Your task to perform on an android device: change text size in settings app Image 0: 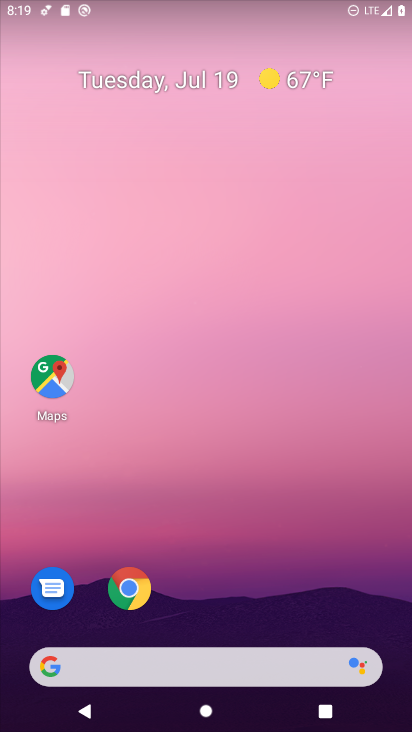
Step 0: drag from (348, 589) to (377, 153)
Your task to perform on an android device: change text size in settings app Image 1: 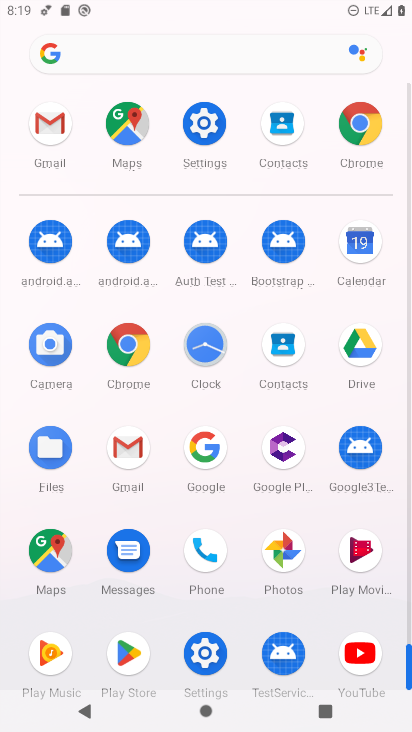
Step 1: click (208, 138)
Your task to perform on an android device: change text size in settings app Image 2: 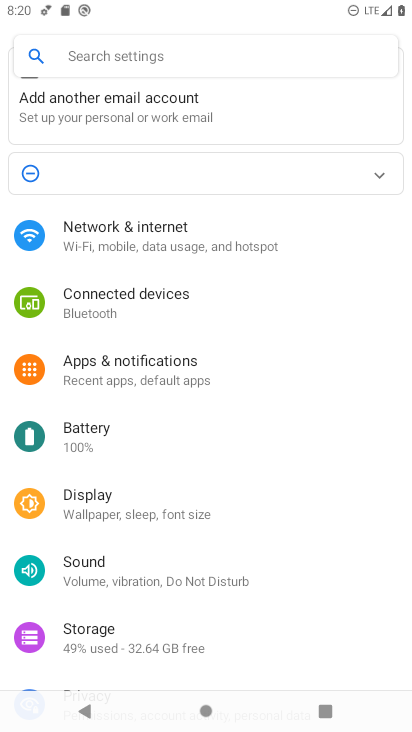
Step 2: click (221, 485)
Your task to perform on an android device: change text size in settings app Image 3: 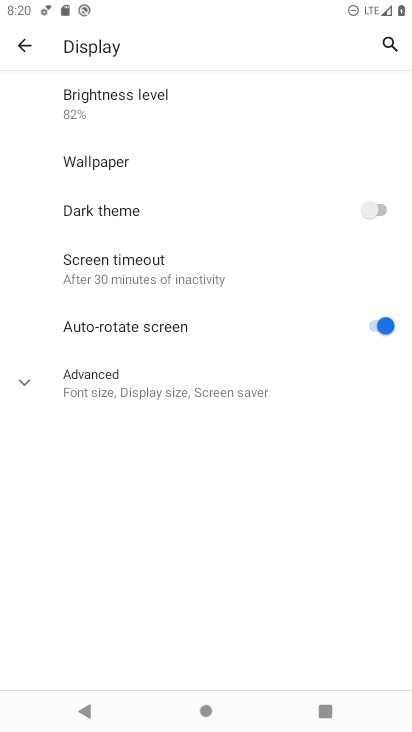
Step 3: click (206, 383)
Your task to perform on an android device: change text size in settings app Image 4: 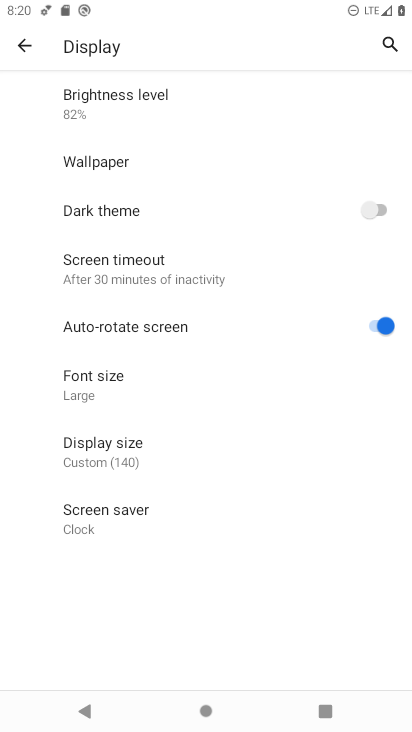
Step 4: click (129, 386)
Your task to perform on an android device: change text size in settings app Image 5: 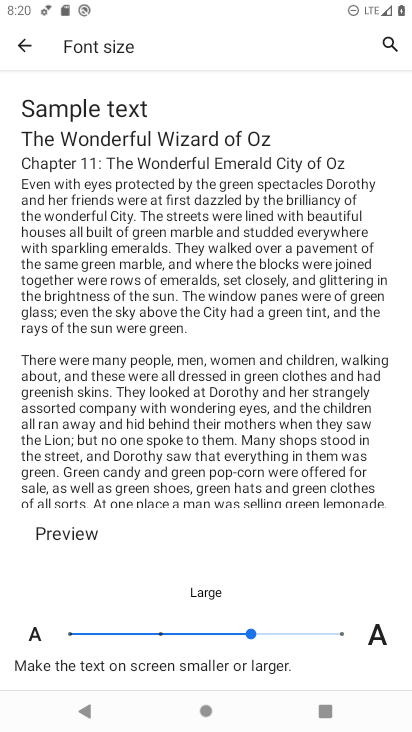
Step 5: click (341, 632)
Your task to perform on an android device: change text size in settings app Image 6: 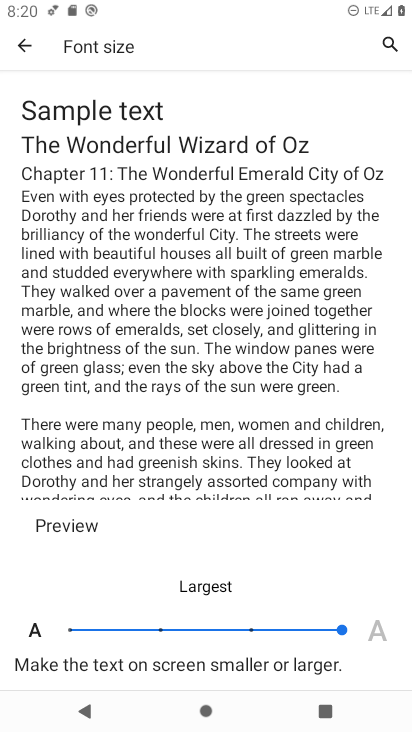
Step 6: task complete